Your task to perform on an android device: open app "Google Sheets" (install if not already installed) Image 0: 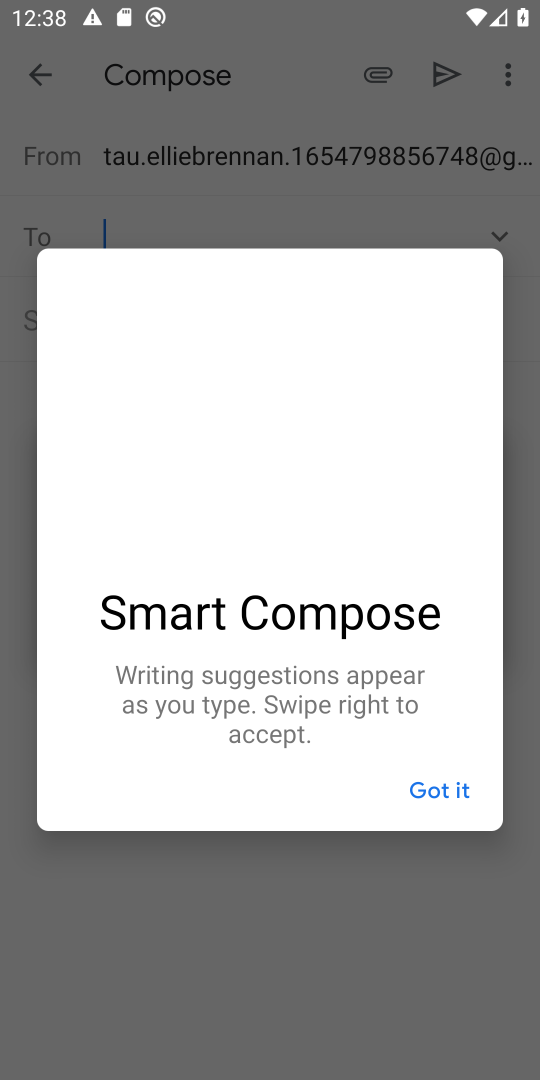
Step 0: press home button
Your task to perform on an android device: open app "Google Sheets" (install if not already installed) Image 1: 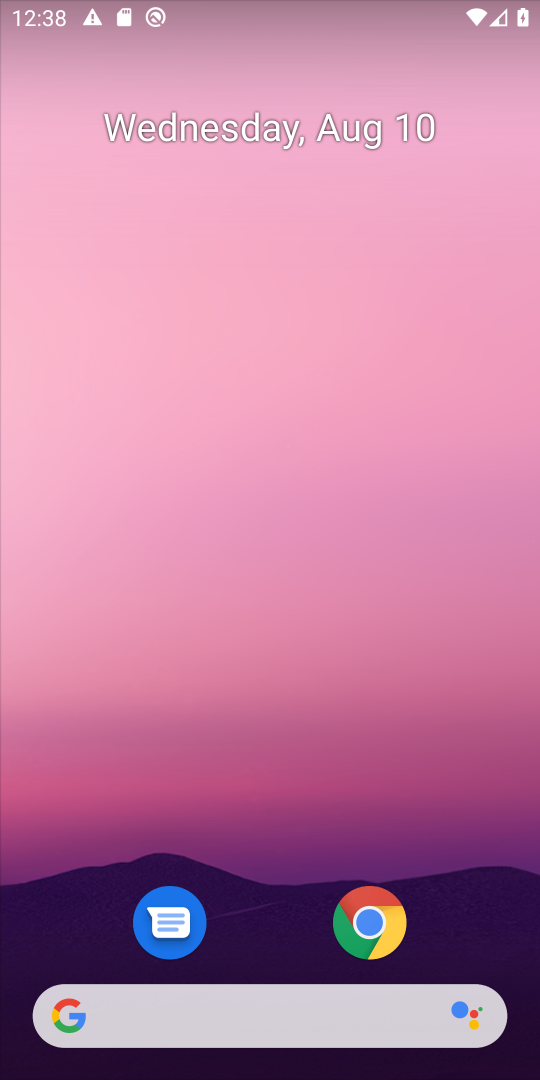
Step 1: drag from (243, 830) to (256, 140)
Your task to perform on an android device: open app "Google Sheets" (install if not already installed) Image 2: 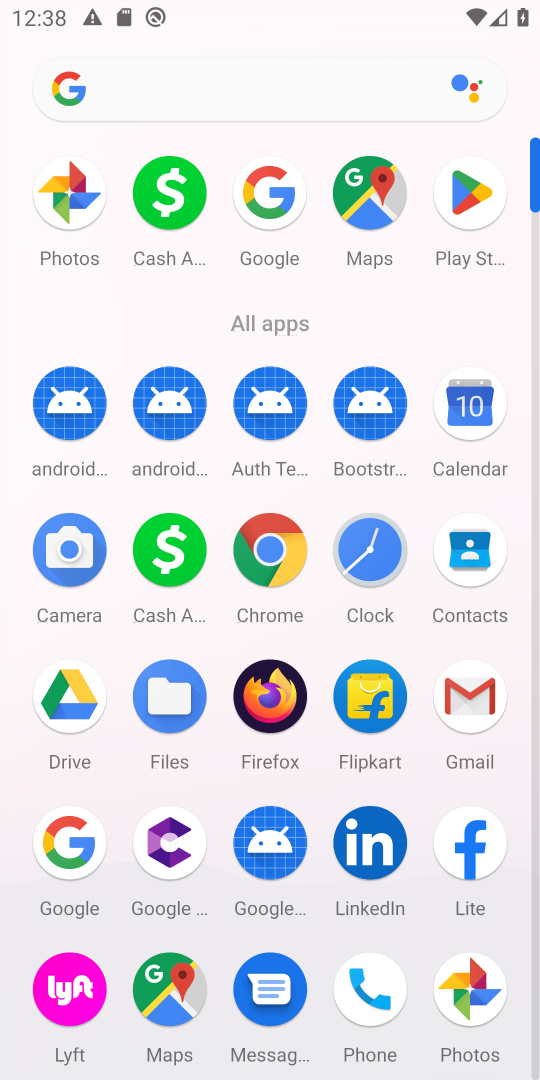
Step 2: click (466, 218)
Your task to perform on an android device: open app "Google Sheets" (install if not already installed) Image 3: 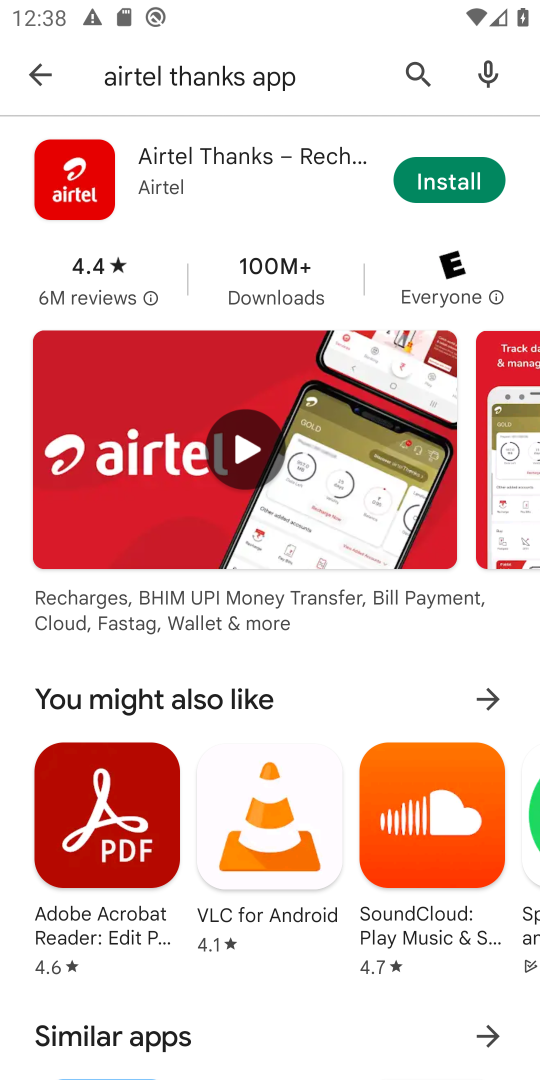
Step 3: click (39, 77)
Your task to perform on an android device: open app "Google Sheets" (install if not already installed) Image 4: 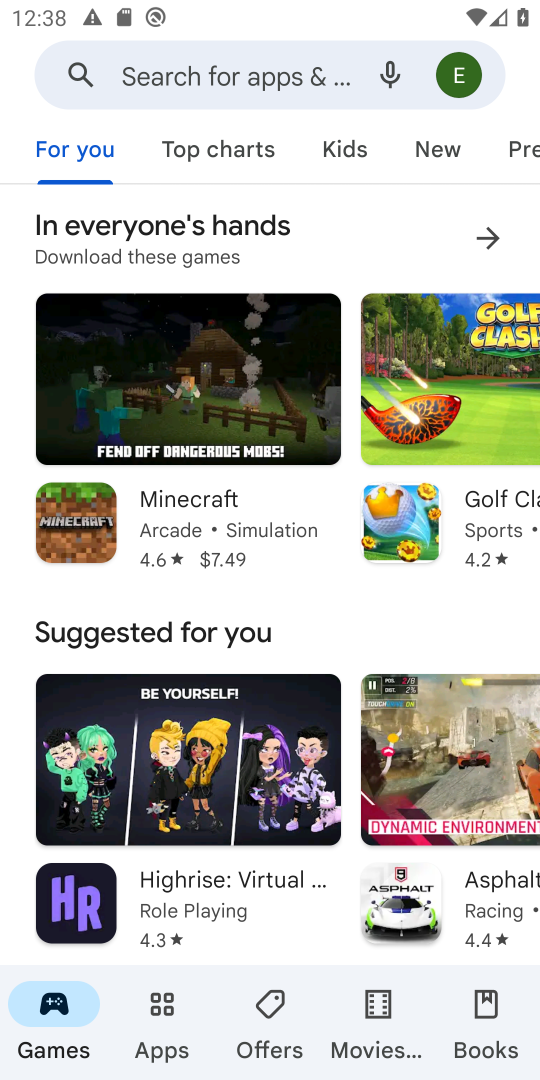
Step 4: click (300, 94)
Your task to perform on an android device: open app "Google Sheets" (install if not already installed) Image 5: 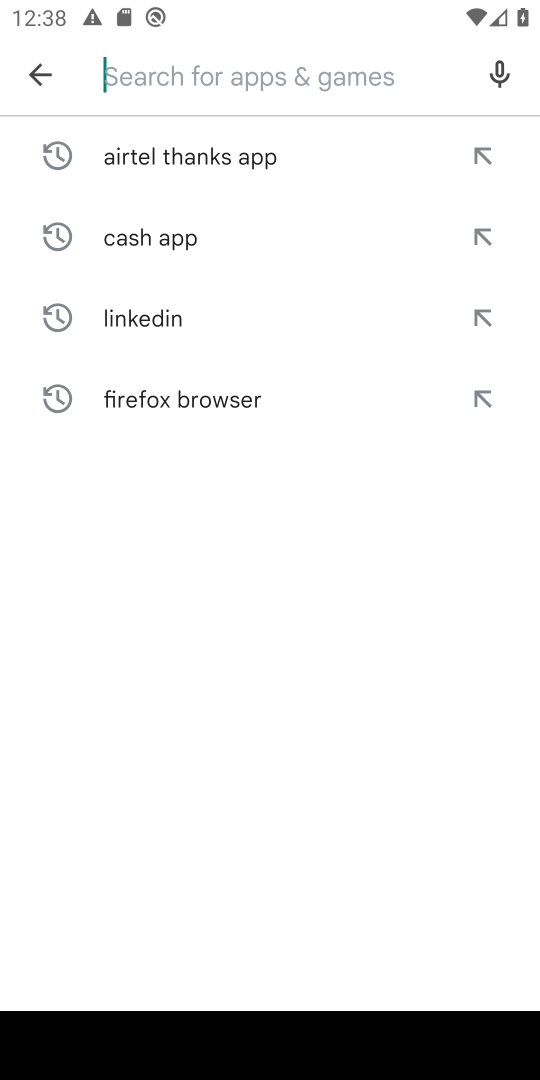
Step 5: type "Google Sheets"
Your task to perform on an android device: open app "Google Sheets" (install if not already installed) Image 6: 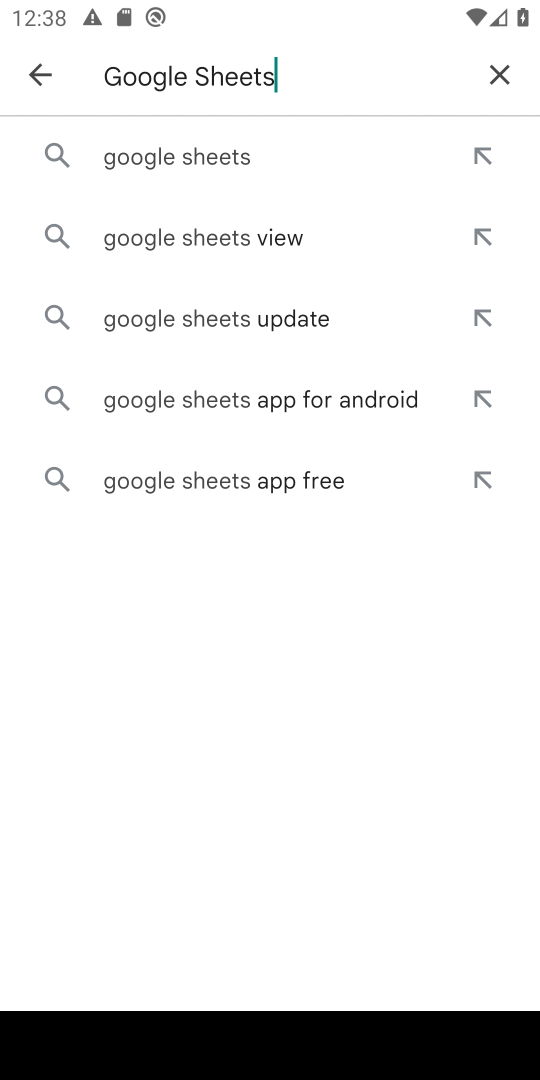
Step 6: click (192, 160)
Your task to perform on an android device: open app "Google Sheets" (install if not already installed) Image 7: 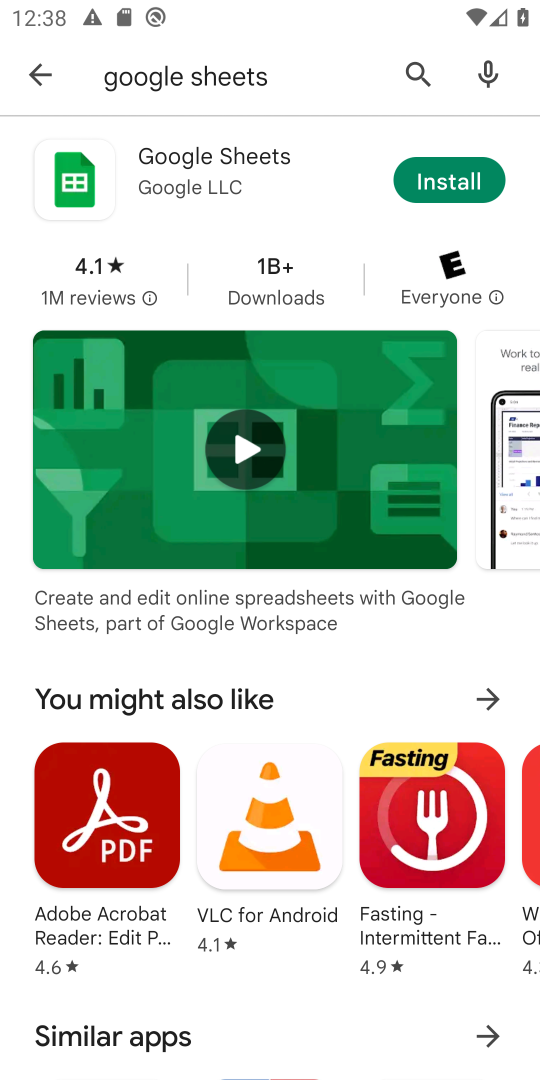
Step 7: click (433, 177)
Your task to perform on an android device: open app "Google Sheets" (install if not already installed) Image 8: 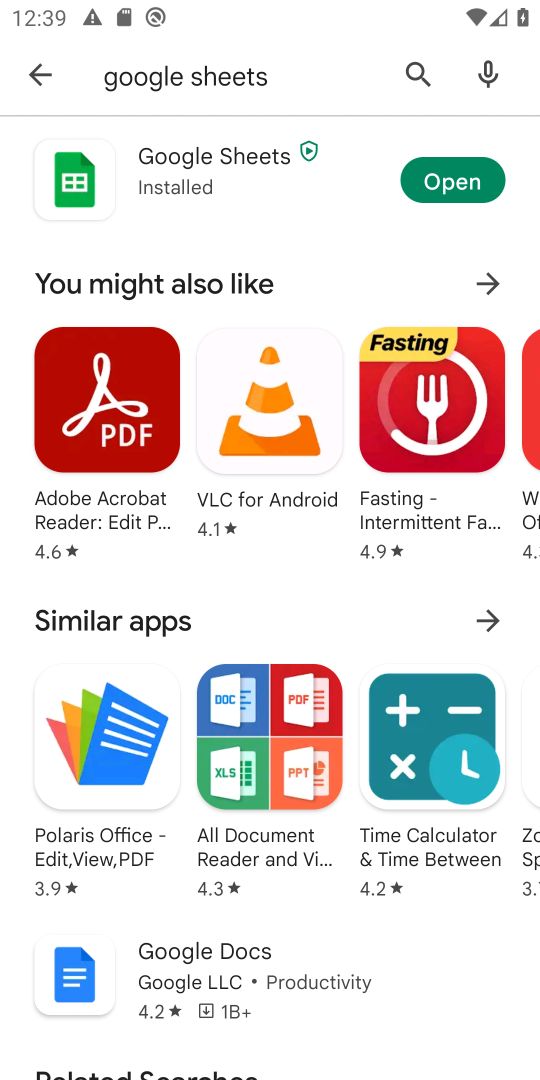
Step 8: click (433, 177)
Your task to perform on an android device: open app "Google Sheets" (install if not already installed) Image 9: 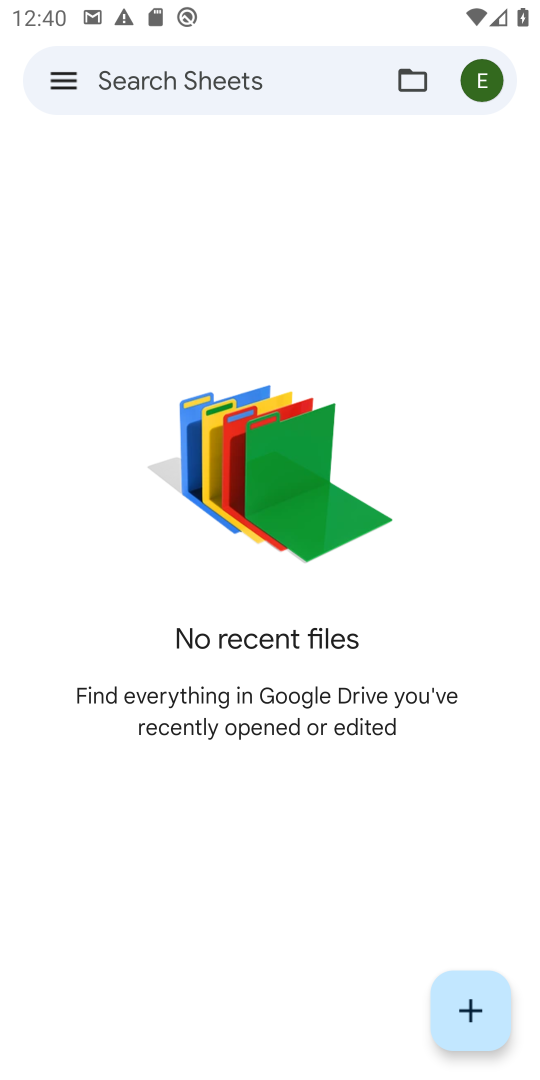
Step 9: task complete